Your task to perform on an android device: delete a single message in the gmail app Image 0: 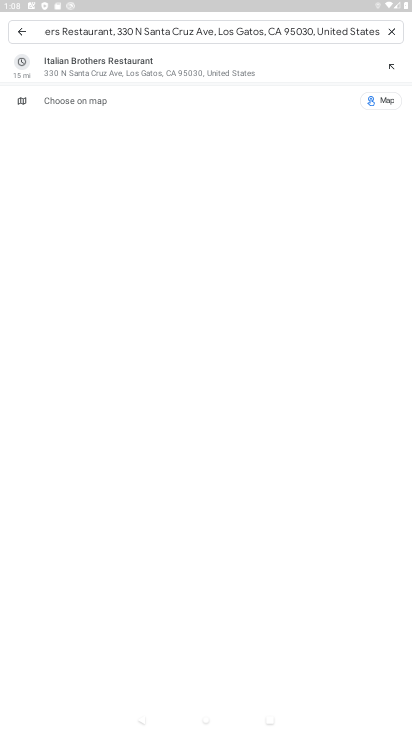
Step 0: press home button
Your task to perform on an android device: delete a single message in the gmail app Image 1: 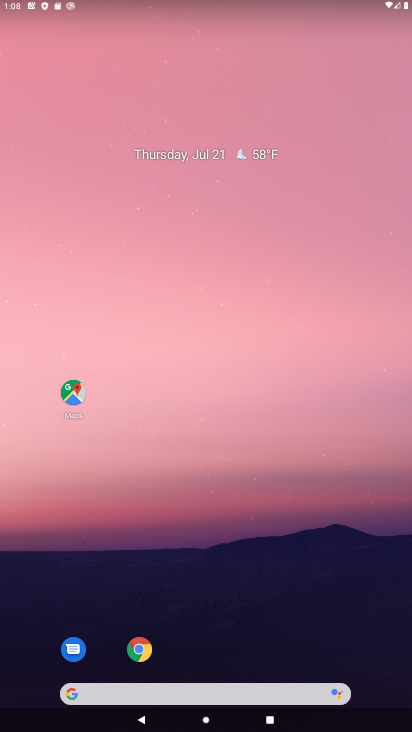
Step 1: drag from (273, 641) to (286, 197)
Your task to perform on an android device: delete a single message in the gmail app Image 2: 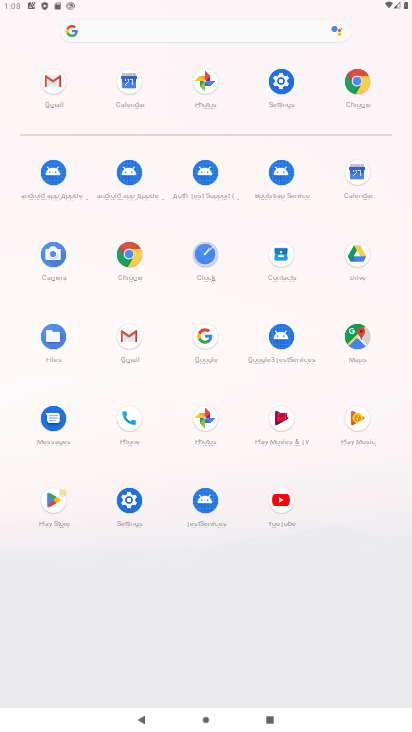
Step 2: click (58, 113)
Your task to perform on an android device: delete a single message in the gmail app Image 3: 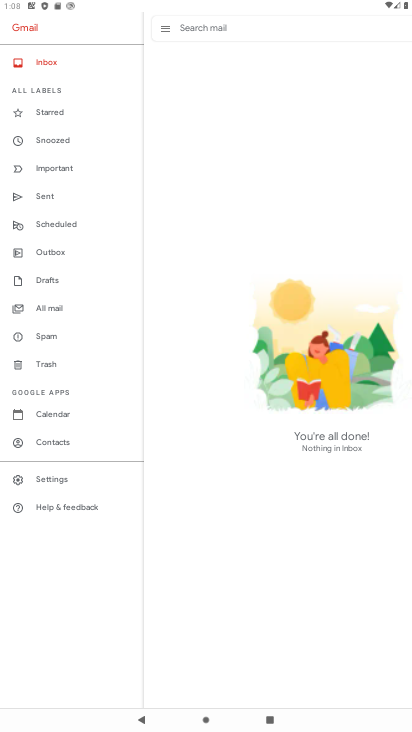
Step 3: task complete